Your task to perform on an android device: move a message to another label in the gmail app Image 0: 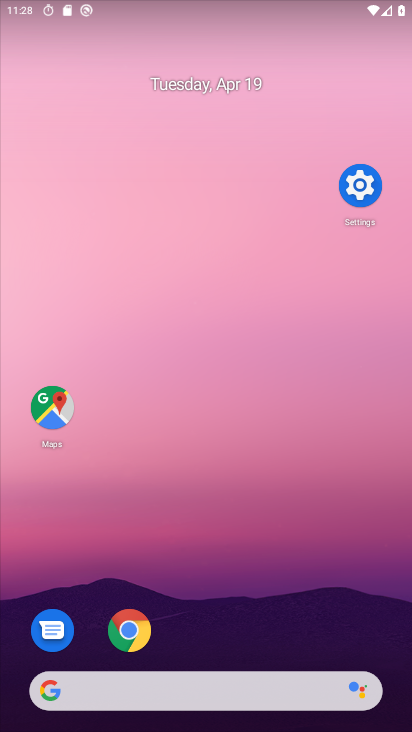
Step 0: drag from (269, 528) to (346, 111)
Your task to perform on an android device: move a message to another label in the gmail app Image 1: 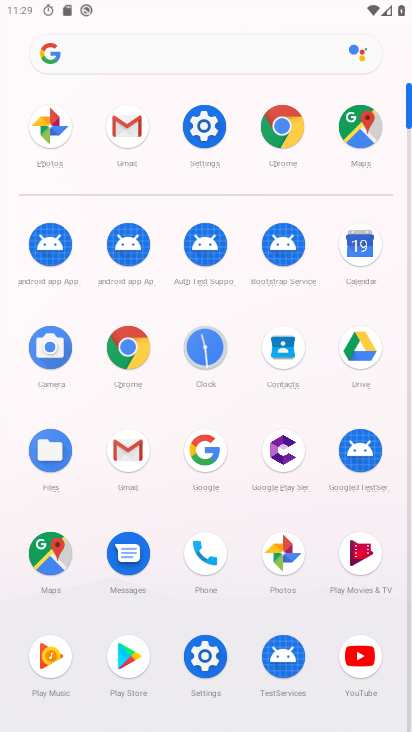
Step 1: click (136, 462)
Your task to perform on an android device: move a message to another label in the gmail app Image 2: 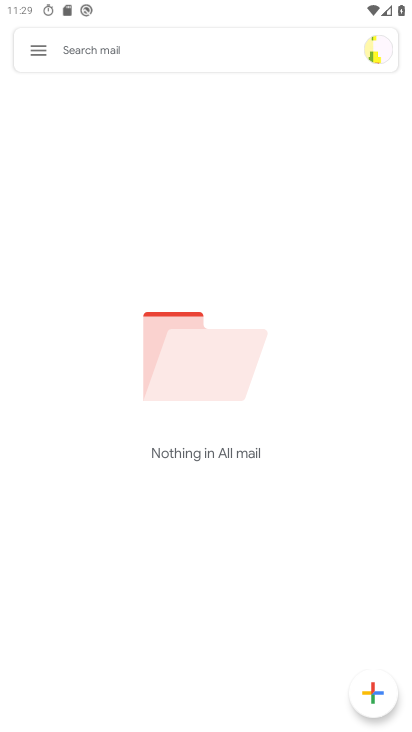
Step 2: task complete